Your task to perform on an android device: Open Youtube and go to "Your channel" Image 0: 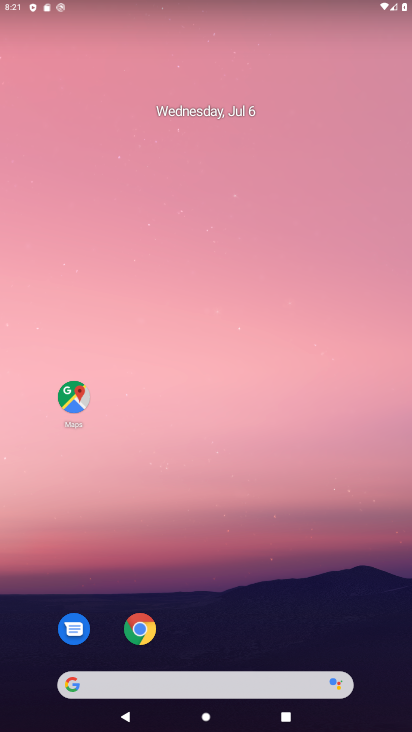
Step 0: drag from (196, 201) to (182, 88)
Your task to perform on an android device: Open Youtube and go to "Your channel" Image 1: 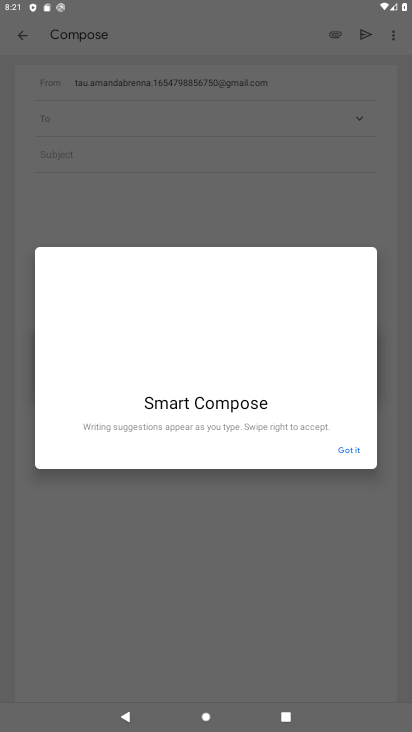
Step 1: press home button
Your task to perform on an android device: Open Youtube and go to "Your channel" Image 2: 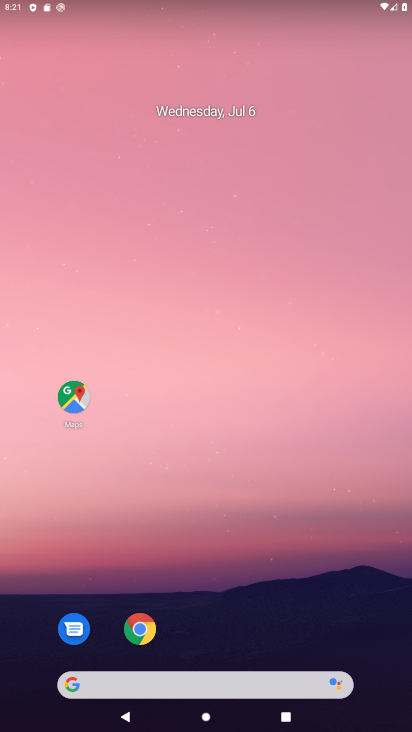
Step 2: drag from (225, 661) to (274, 19)
Your task to perform on an android device: Open Youtube and go to "Your channel" Image 3: 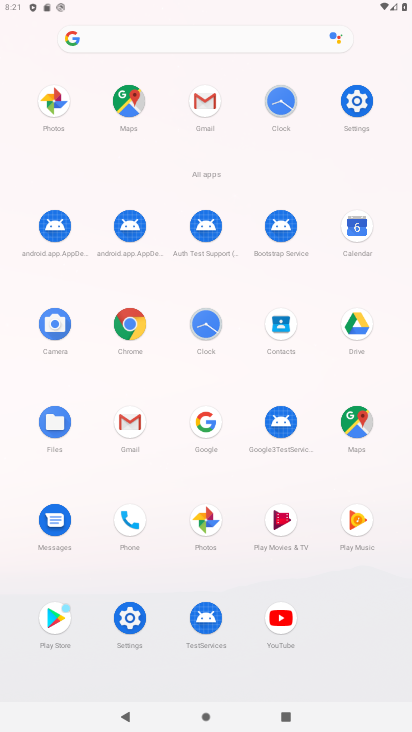
Step 3: click (279, 635)
Your task to perform on an android device: Open Youtube and go to "Your channel" Image 4: 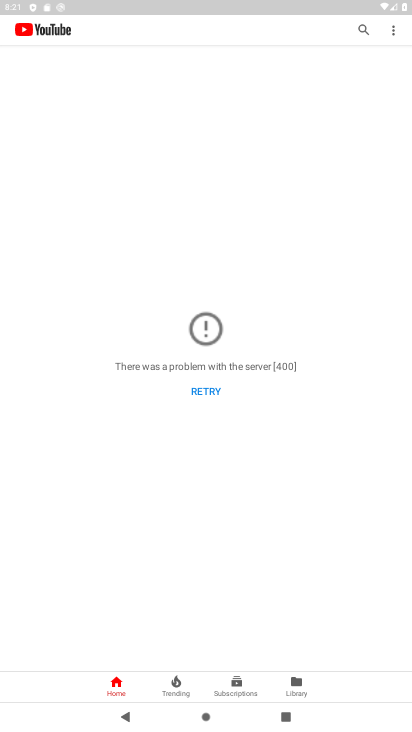
Step 4: click (210, 390)
Your task to perform on an android device: Open Youtube and go to "Your channel" Image 5: 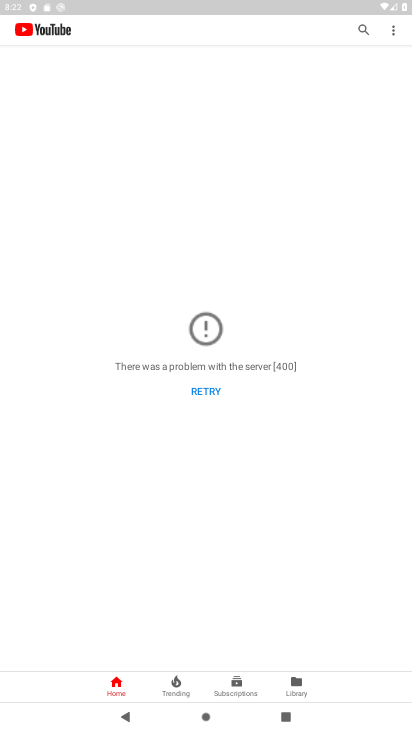
Step 5: drag from (205, 205) to (223, 428)
Your task to perform on an android device: Open Youtube and go to "Your channel" Image 6: 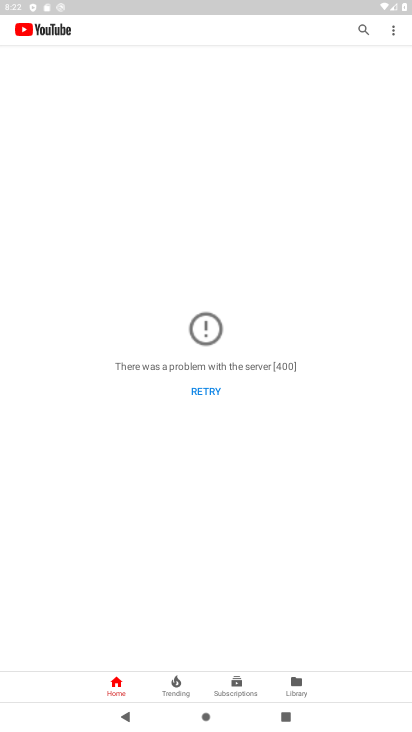
Step 6: click (192, 391)
Your task to perform on an android device: Open Youtube and go to "Your channel" Image 7: 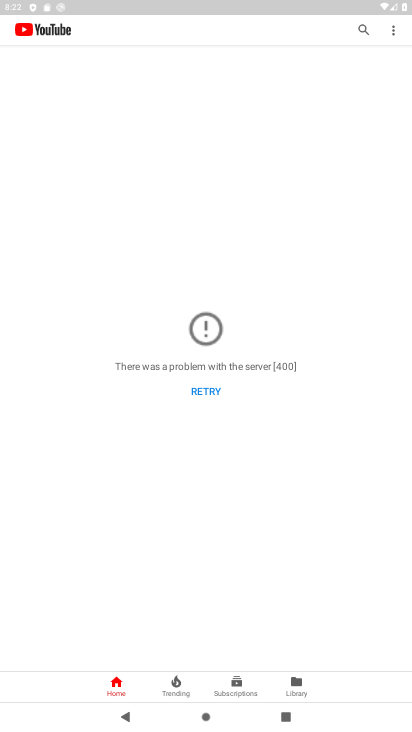
Step 7: task complete